Your task to perform on an android device: change the upload size in google photos Image 0: 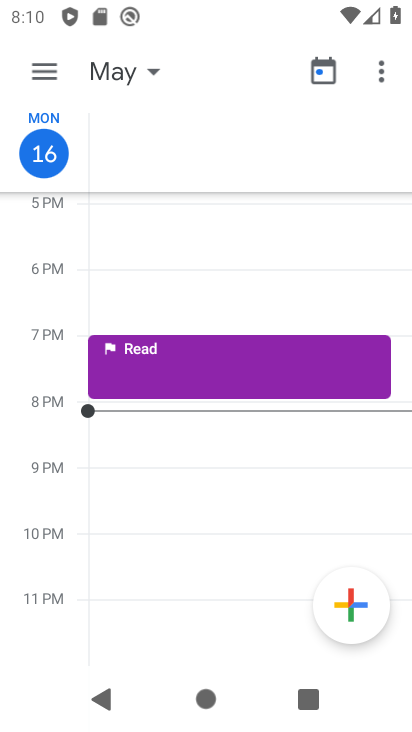
Step 0: press home button
Your task to perform on an android device: change the upload size in google photos Image 1: 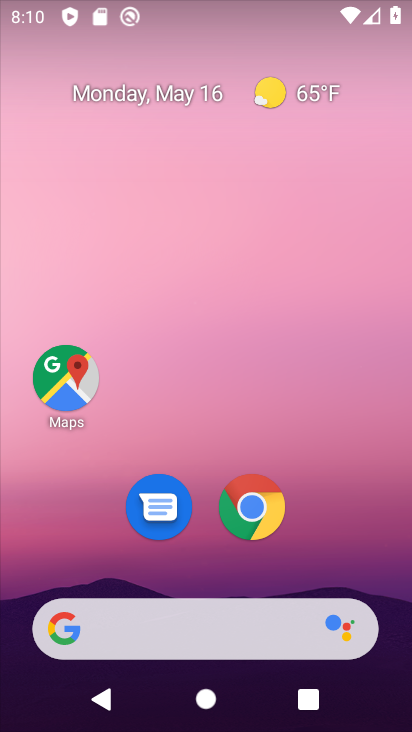
Step 1: drag from (233, 583) to (150, 30)
Your task to perform on an android device: change the upload size in google photos Image 2: 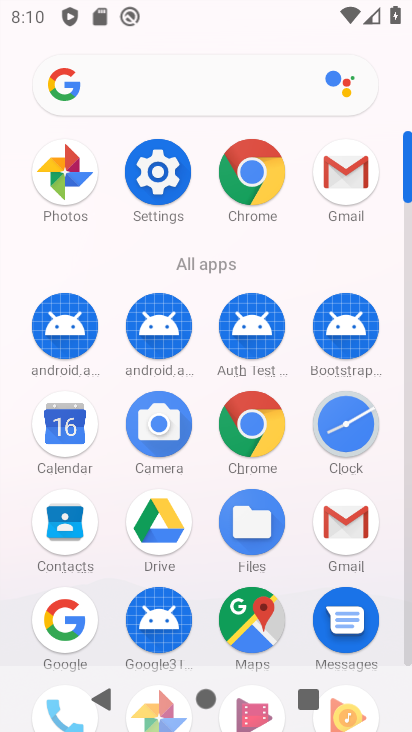
Step 2: click (64, 155)
Your task to perform on an android device: change the upload size in google photos Image 3: 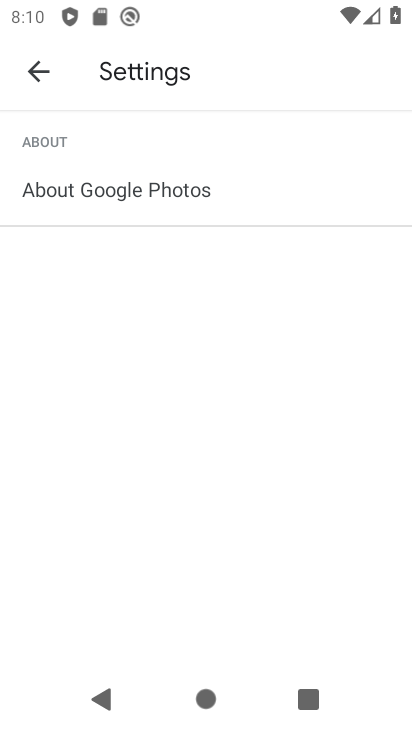
Step 3: click (40, 84)
Your task to perform on an android device: change the upload size in google photos Image 4: 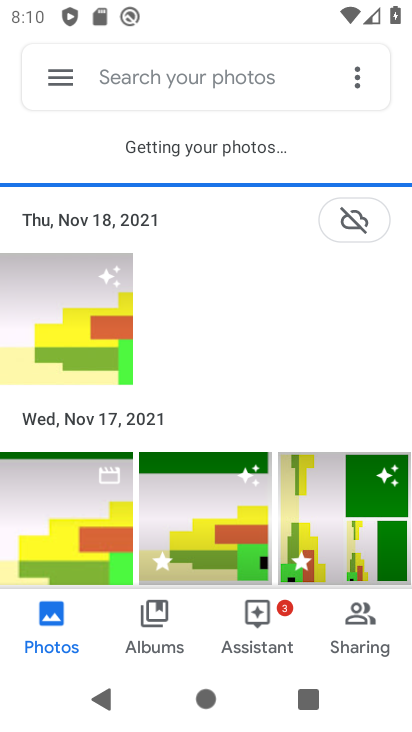
Step 4: click (41, 83)
Your task to perform on an android device: change the upload size in google photos Image 5: 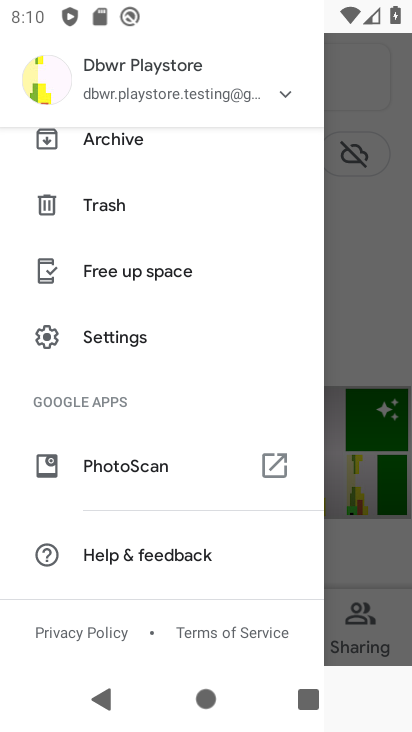
Step 5: click (122, 325)
Your task to perform on an android device: change the upload size in google photos Image 6: 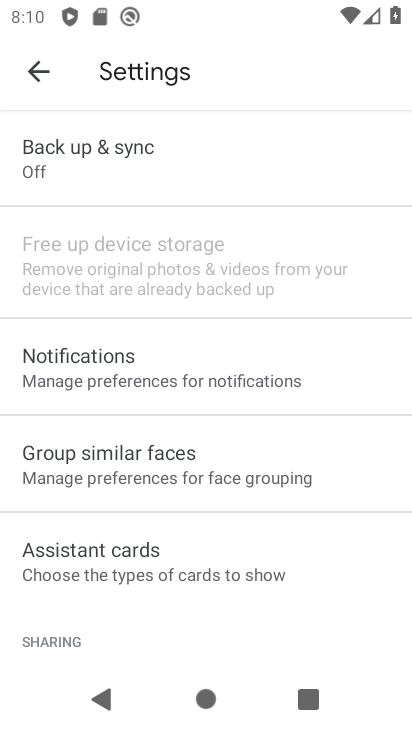
Step 6: drag from (125, 495) to (138, 6)
Your task to perform on an android device: change the upload size in google photos Image 7: 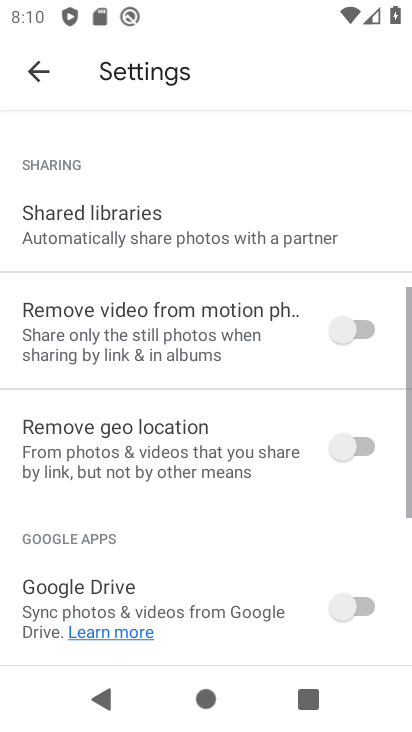
Step 7: drag from (190, 465) to (122, 38)
Your task to perform on an android device: change the upload size in google photos Image 8: 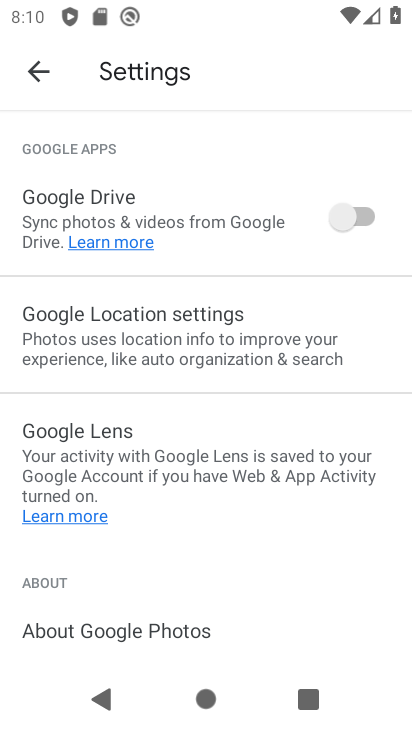
Step 8: drag from (216, 466) to (167, 55)
Your task to perform on an android device: change the upload size in google photos Image 9: 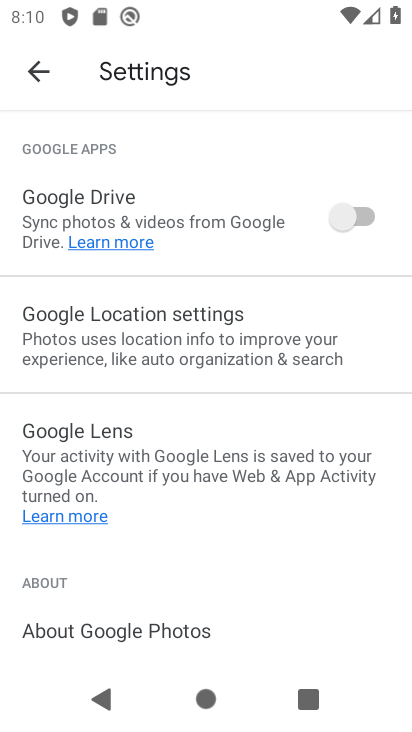
Step 9: drag from (219, 245) to (204, 691)
Your task to perform on an android device: change the upload size in google photos Image 10: 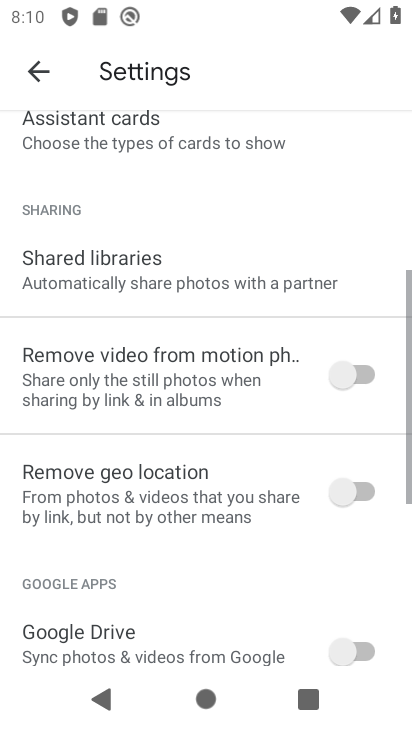
Step 10: drag from (191, 276) to (210, 725)
Your task to perform on an android device: change the upload size in google photos Image 11: 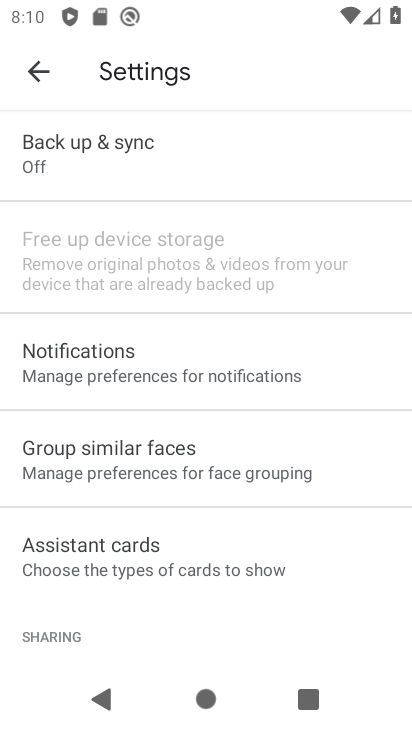
Step 11: click (157, 187)
Your task to perform on an android device: change the upload size in google photos Image 12: 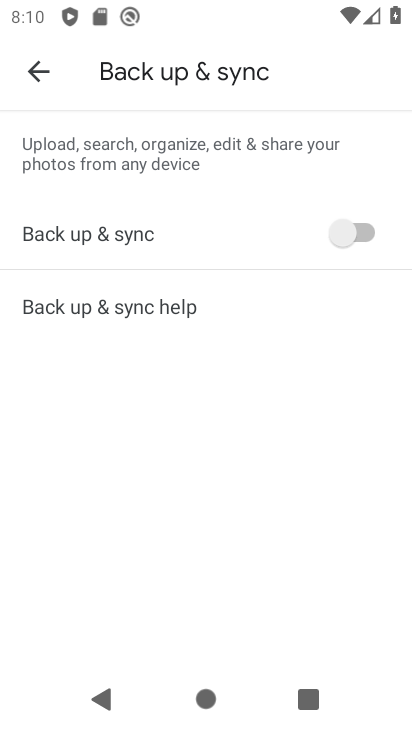
Step 12: click (351, 222)
Your task to perform on an android device: change the upload size in google photos Image 13: 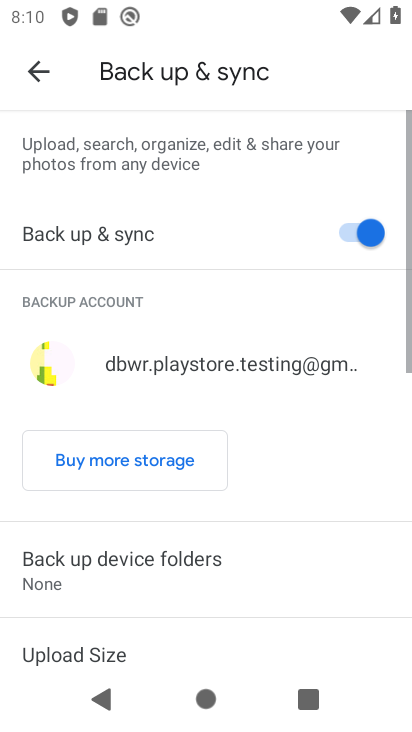
Step 13: drag from (215, 546) to (215, 330)
Your task to perform on an android device: change the upload size in google photos Image 14: 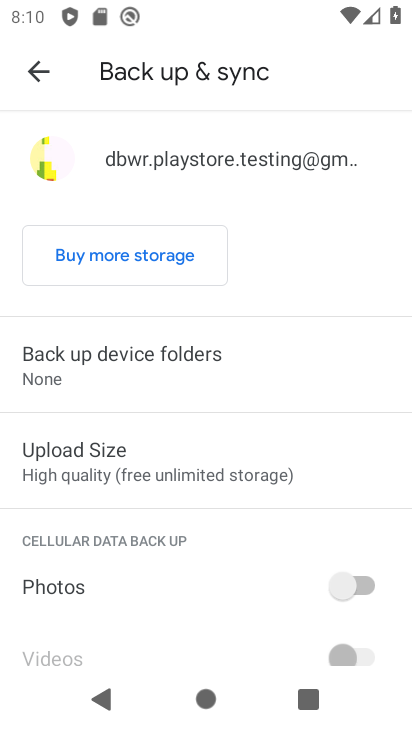
Step 14: click (140, 449)
Your task to perform on an android device: change the upload size in google photos Image 15: 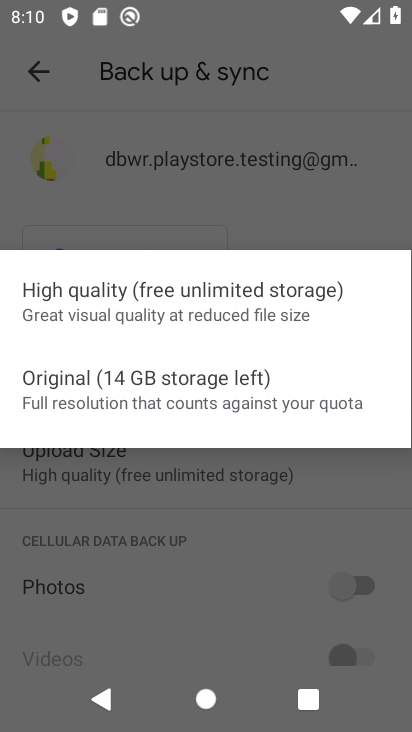
Step 15: click (151, 410)
Your task to perform on an android device: change the upload size in google photos Image 16: 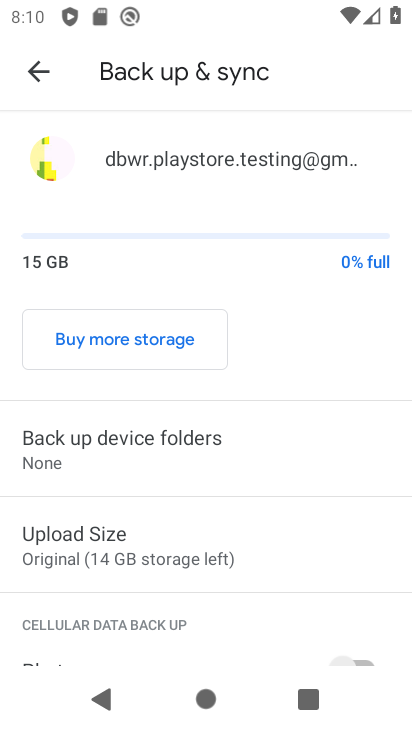
Step 16: task complete